Your task to perform on an android device: Empty the shopping cart on newegg. Image 0: 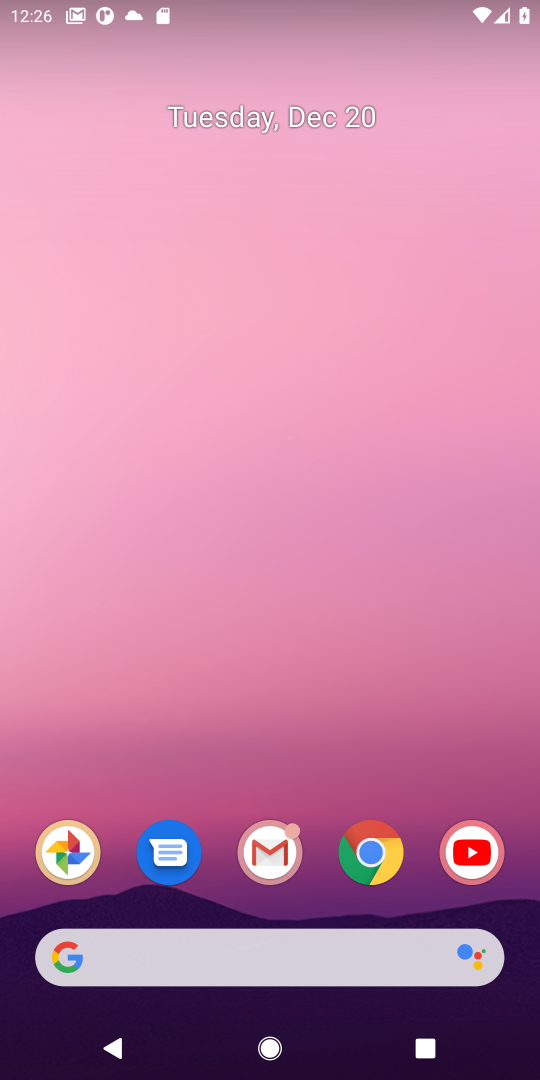
Step 0: click (384, 854)
Your task to perform on an android device: Empty the shopping cart on newegg. Image 1: 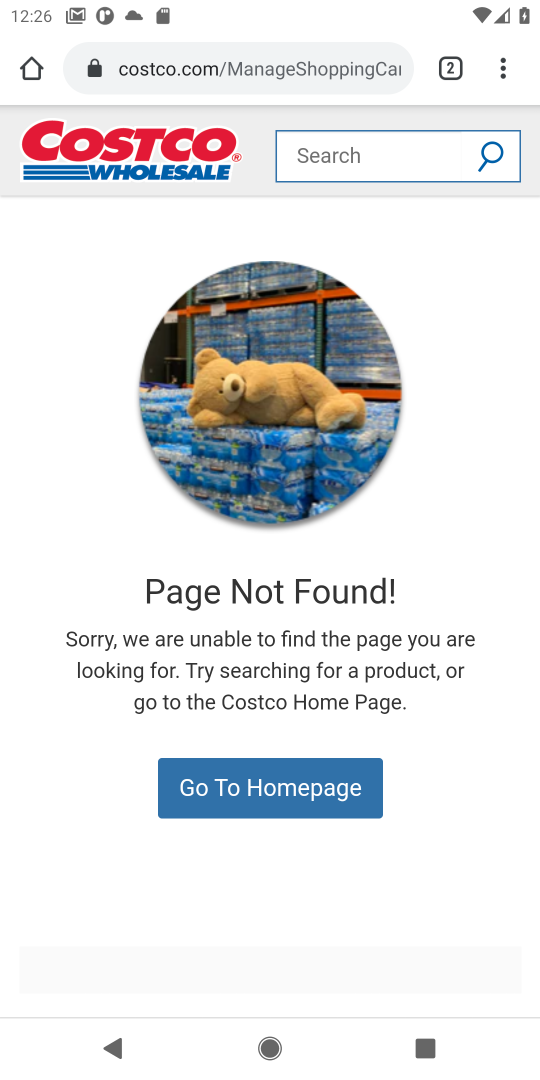
Step 1: click (228, 79)
Your task to perform on an android device: Empty the shopping cart on newegg. Image 2: 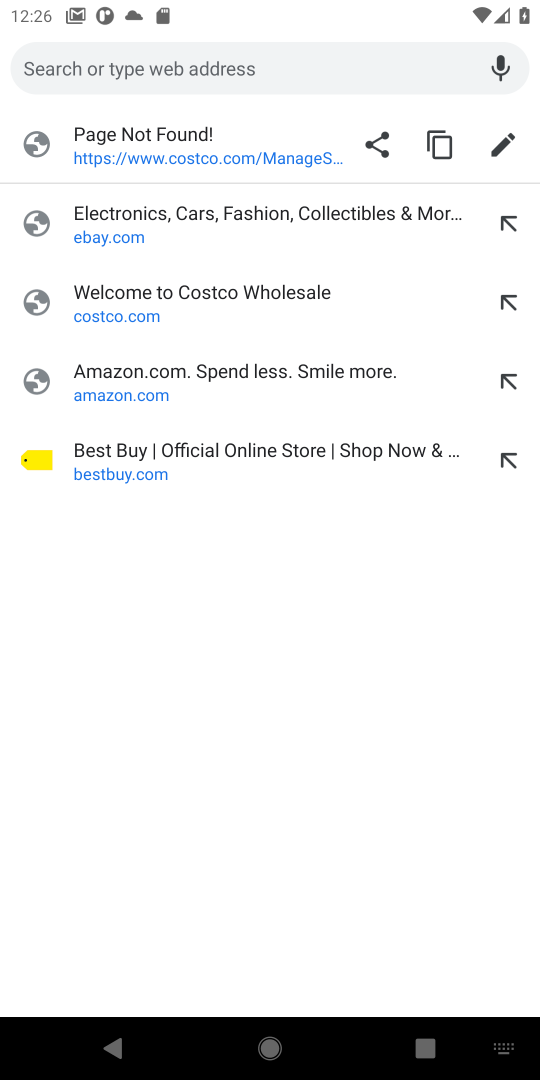
Step 2: type "newegg.com"
Your task to perform on an android device: Empty the shopping cart on newegg. Image 3: 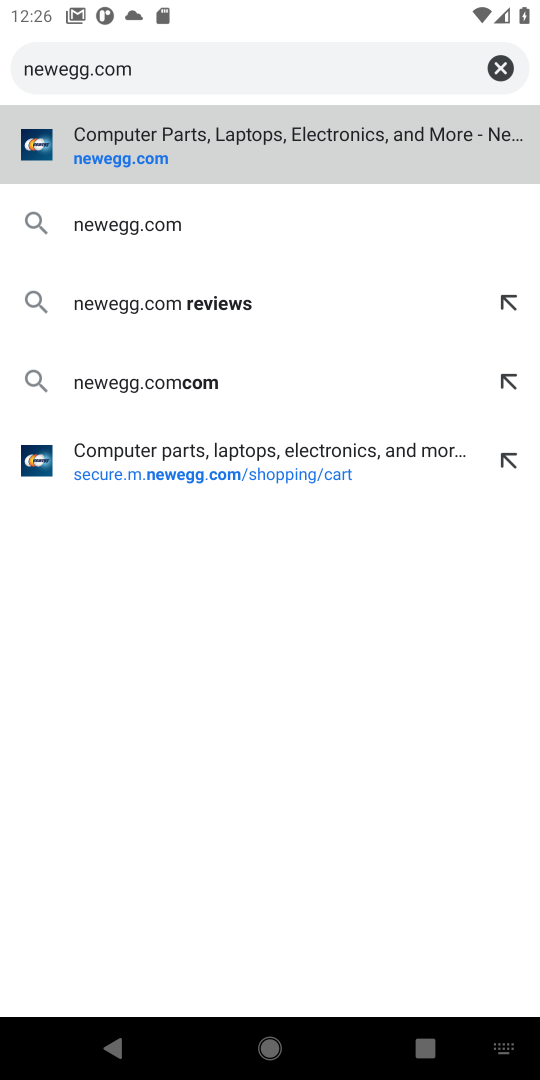
Step 3: click (107, 149)
Your task to perform on an android device: Empty the shopping cart on newegg. Image 4: 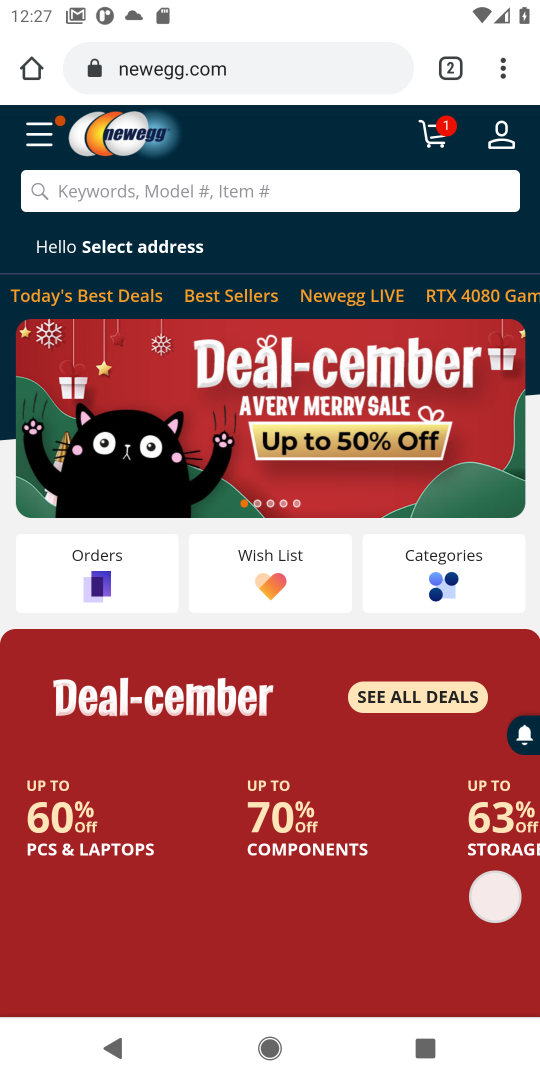
Step 4: click (436, 149)
Your task to perform on an android device: Empty the shopping cart on newegg. Image 5: 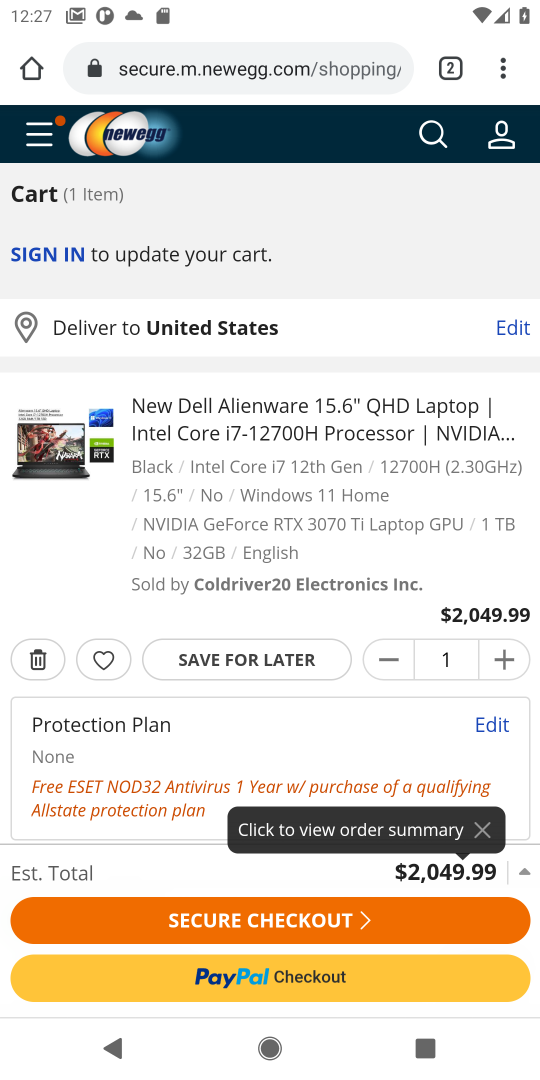
Step 5: click (38, 667)
Your task to perform on an android device: Empty the shopping cart on newegg. Image 6: 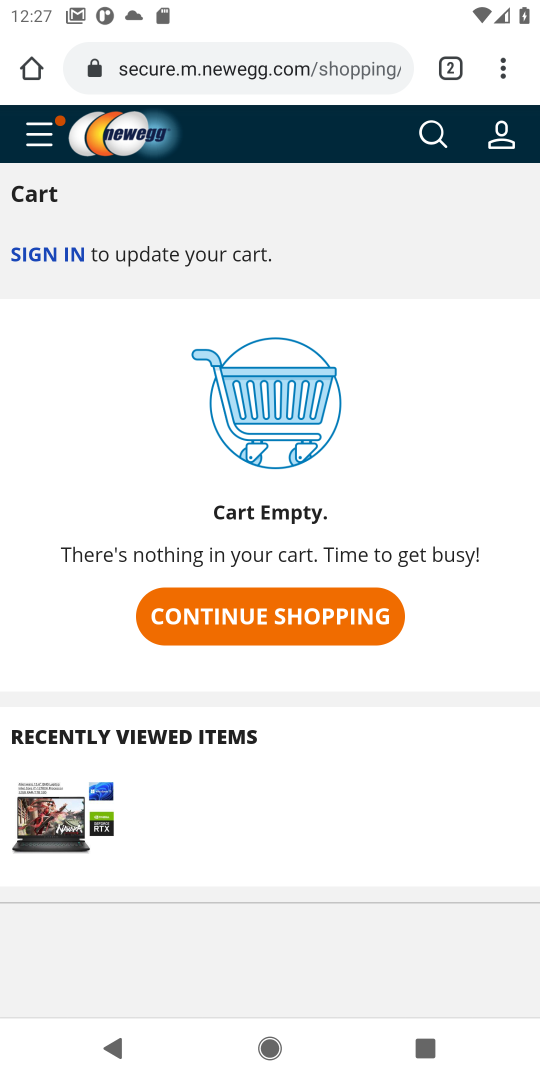
Step 6: task complete